Your task to perform on an android device: delete the emails in spam in the gmail app Image 0: 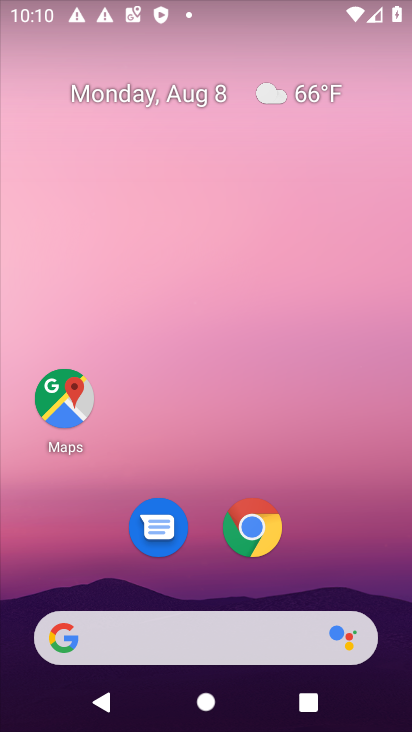
Step 0: drag from (393, 571) to (337, 263)
Your task to perform on an android device: delete the emails in spam in the gmail app Image 1: 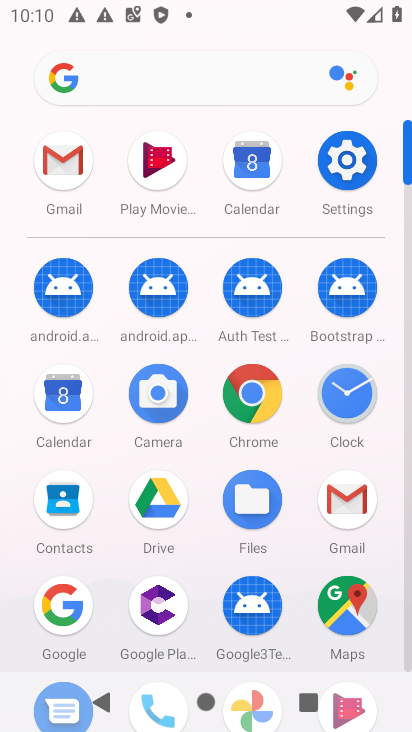
Step 1: click (360, 495)
Your task to perform on an android device: delete the emails in spam in the gmail app Image 2: 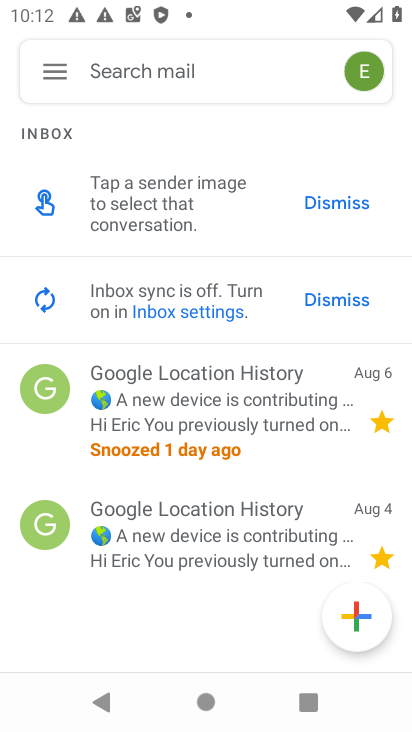
Step 2: click (47, 66)
Your task to perform on an android device: delete the emails in spam in the gmail app Image 3: 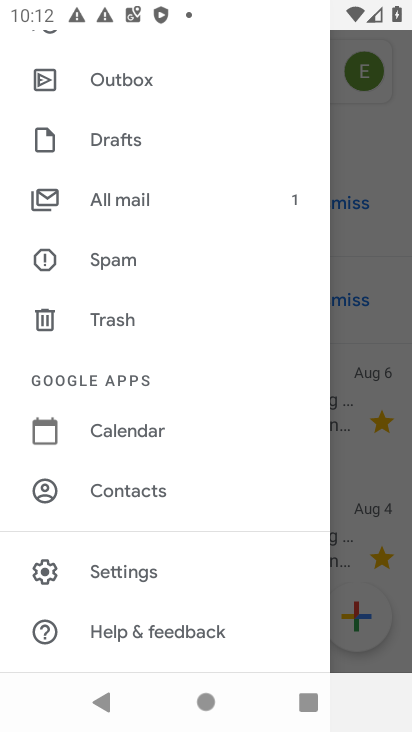
Step 3: click (103, 256)
Your task to perform on an android device: delete the emails in spam in the gmail app Image 4: 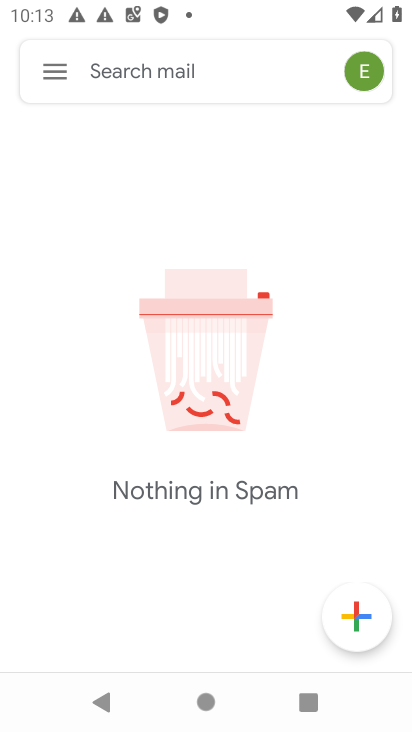
Step 4: task complete